Your task to perform on an android device: turn off priority inbox in the gmail app Image 0: 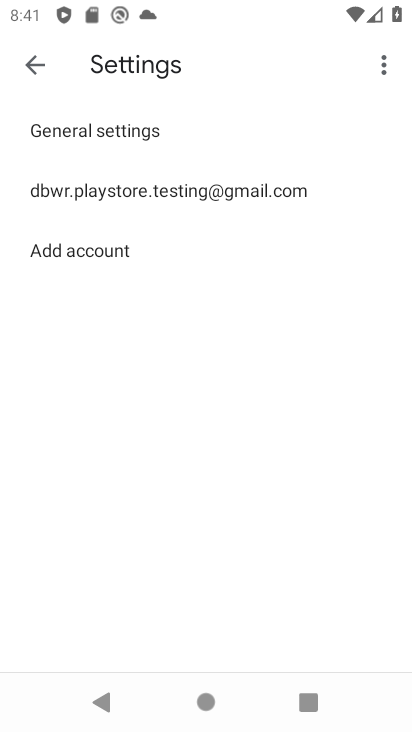
Step 0: click (39, 57)
Your task to perform on an android device: turn off priority inbox in the gmail app Image 1: 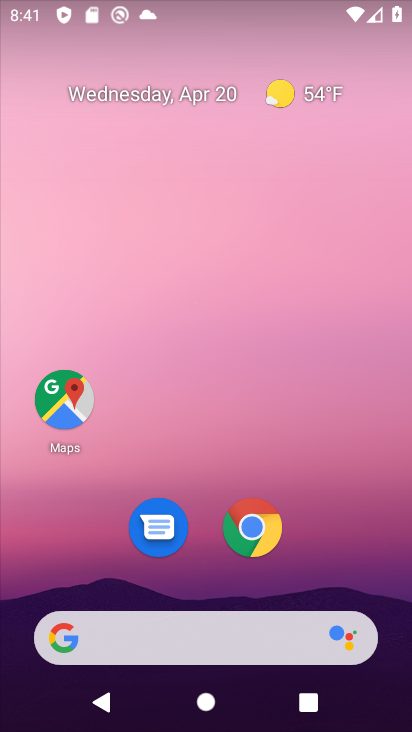
Step 1: drag from (345, 530) to (291, 36)
Your task to perform on an android device: turn off priority inbox in the gmail app Image 2: 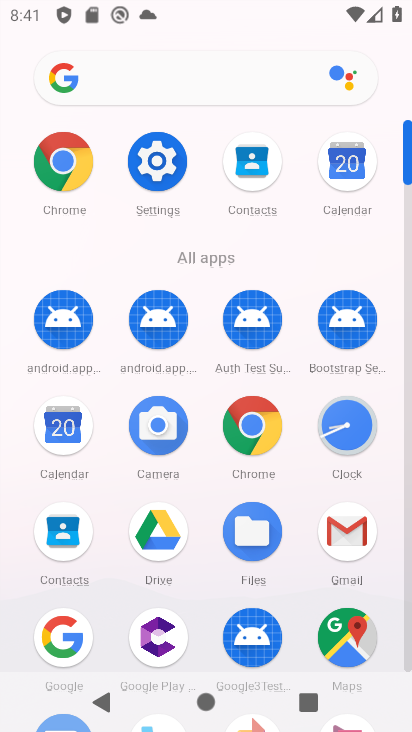
Step 2: click (342, 543)
Your task to perform on an android device: turn off priority inbox in the gmail app Image 3: 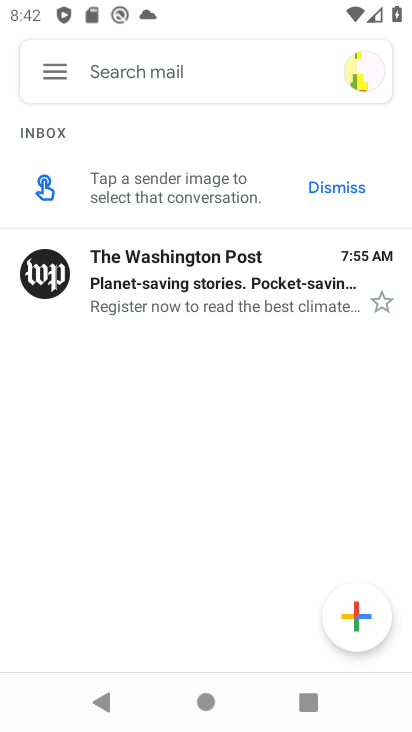
Step 3: click (59, 69)
Your task to perform on an android device: turn off priority inbox in the gmail app Image 4: 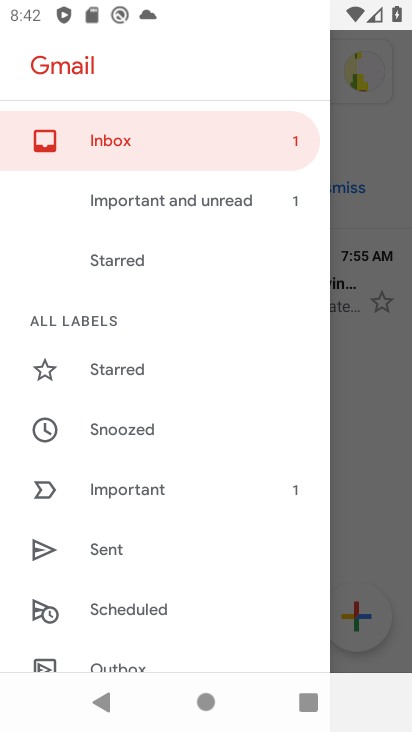
Step 4: drag from (181, 581) to (232, 101)
Your task to perform on an android device: turn off priority inbox in the gmail app Image 5: 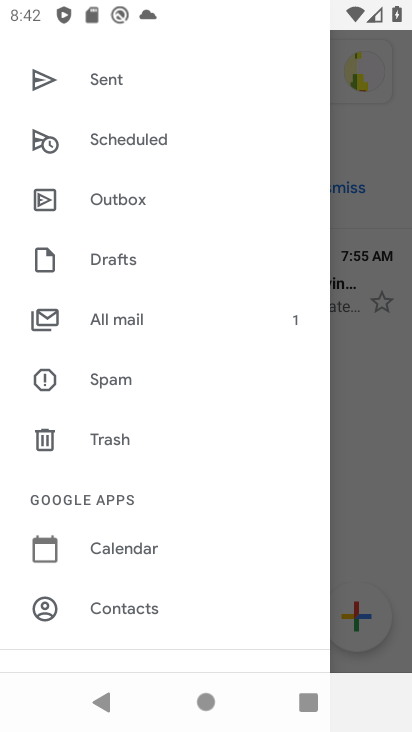
Step 5: drag from (242, 578) to (272, 109)
Your task to perform on an android device: turn off priority inbox in the gmail app Image 6: 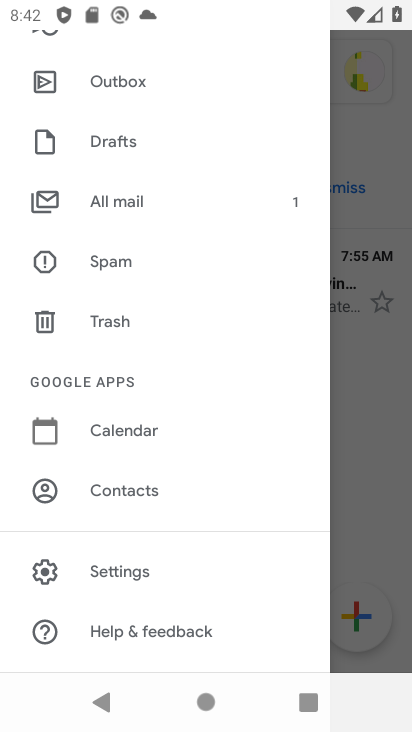
Step 6: click (161, 572)
Your task to perform on an android device: turn off priority inbox in the gmail app Image 7: 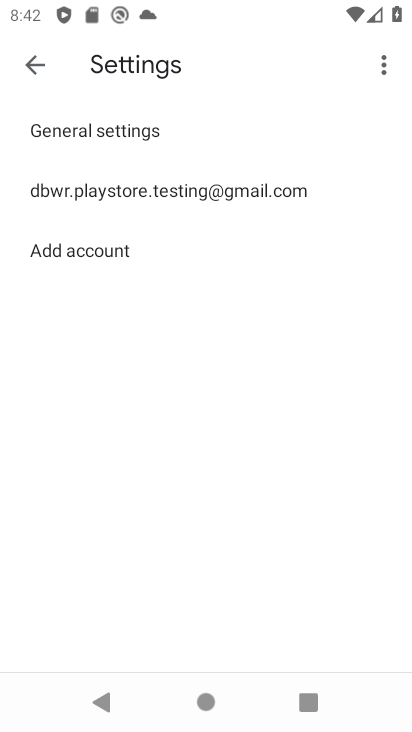
Step 7: click (155, 183)
Your task to perform on an android device: turn off priority inbox in the gmail app Image 8: 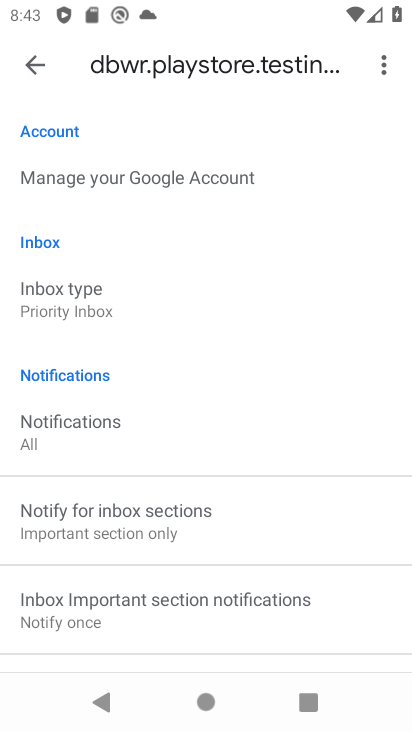
Step 8: click (110, 317)
Your task to perform on an android device: turn off priority inbox in the gmail app Image 9: 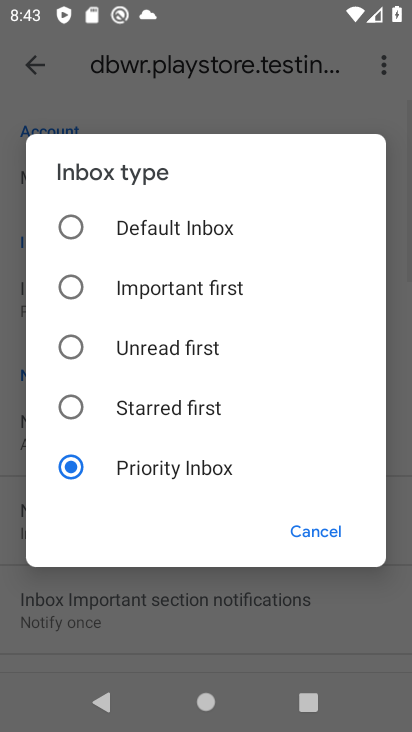
Step 9: click (120, 220)
Your task to perform on an android device: turn off priority inbox in the gmail app Image 10: 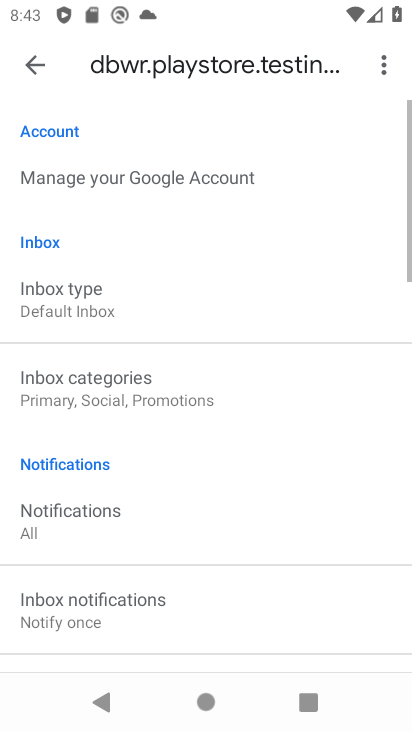
Step 10: task complete